Your task to perform on an android device: Open eBay Image 0: 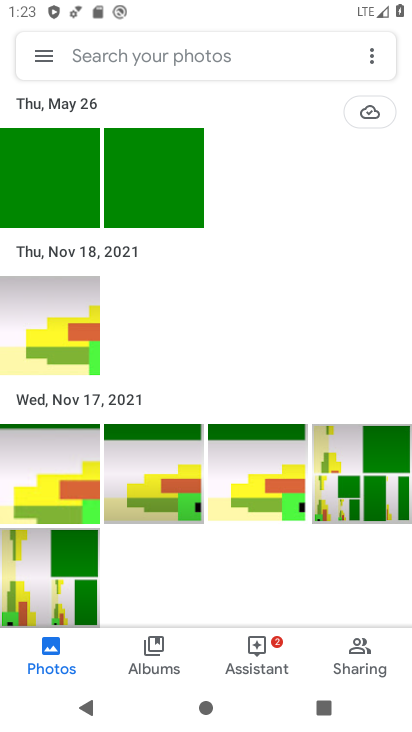
Step 0: press home button
Your task to perform on an android device: Open eBay Image 1: 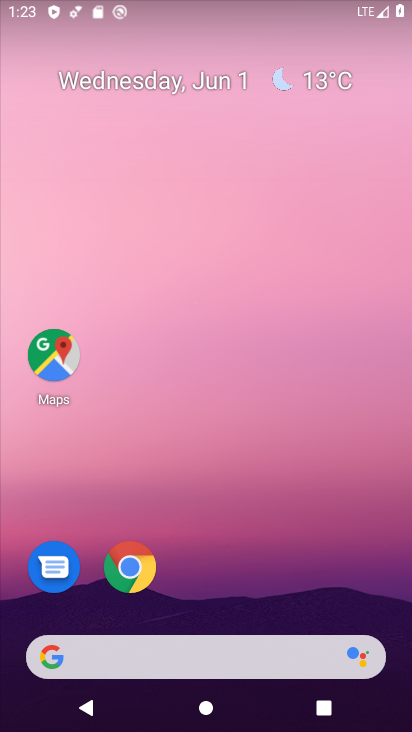
Step 1: click (145, 581)
Your task to perform on an android device: Open eBay Image 2: 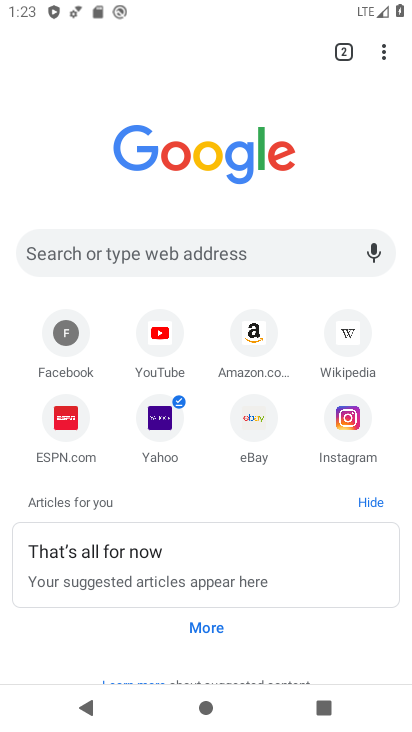
Step 2: click (258, 419)
Your task to perform on an android device: Open eBay Image 3: 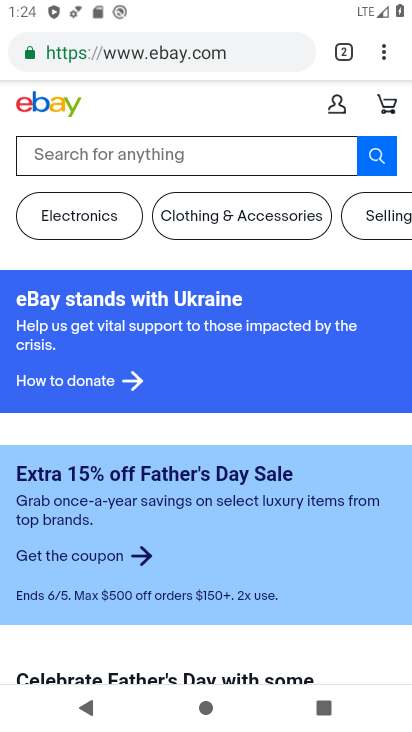
Step 3: task complete